Your task to perform on an android device: set default search engine in the chrome app Image 0: 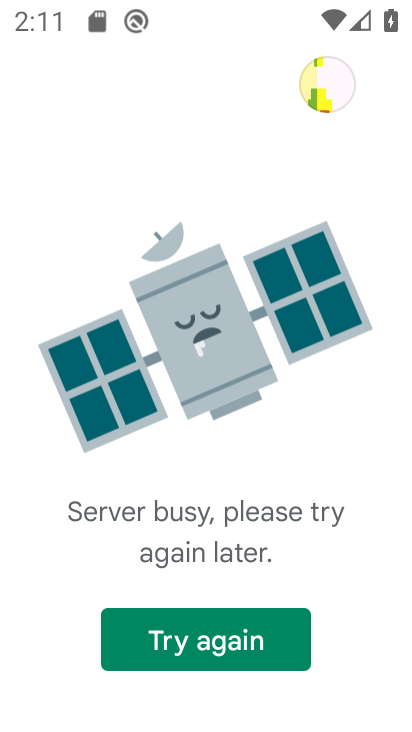
Step 0: press home button
Your task to perform on an android device: set default search engine in the chrome app Image 1: 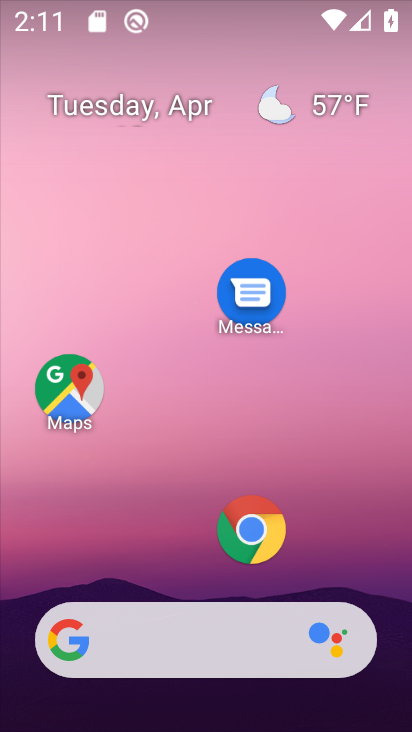
Step 1: click (257, 525)
Your task to perform on an android device: set default search engine in the chrome app Image 2: 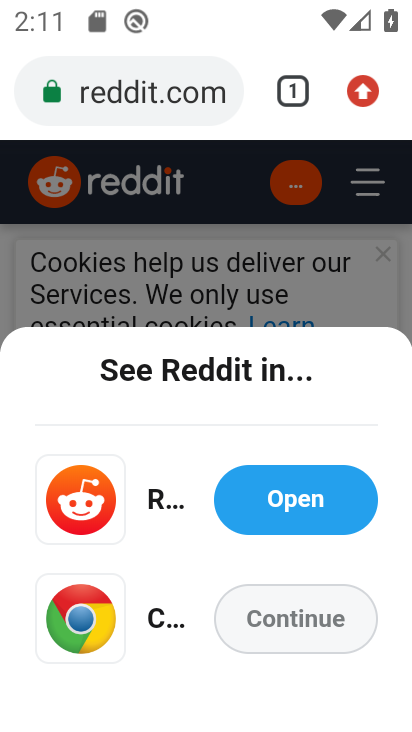
Step 2: click (363, 88)
Your task to perform on an android device: set default search engine in the chrome app Image 3: 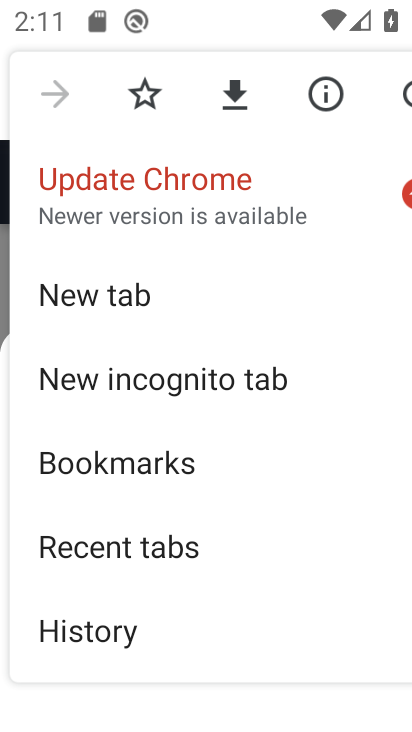
Step 3: drag from (270, 547) to (292, 202)
Your task to perform on an android device: set default search engine in the chrome app Image 4: 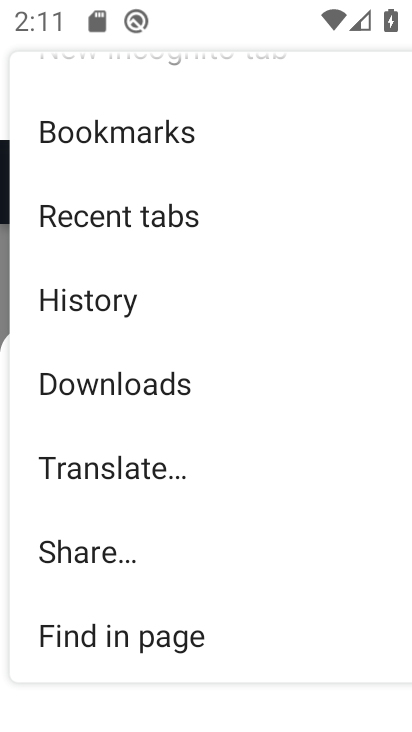
Step 4: drag from (145, 532) to (182, 297)
Your task to perform on an android device: set default search engine in the chrome app Image 5: 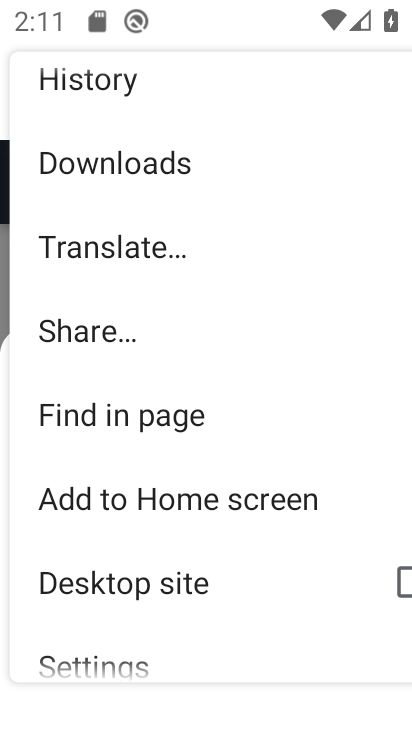
Step 5: click (93, 654)
Your task to perform on an android device: set default search engine in the chrome app Image 6: 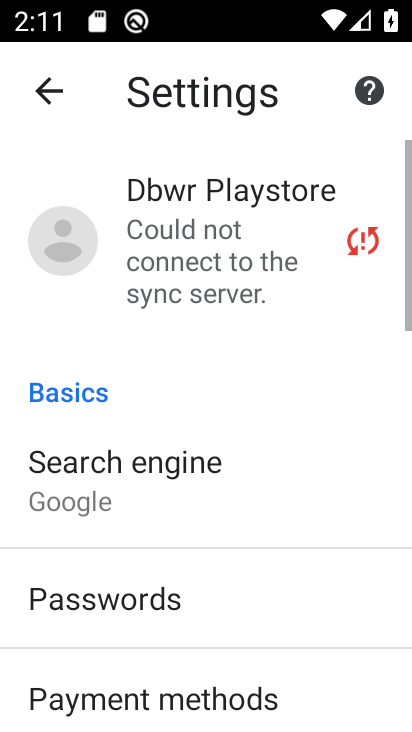
Step 6: click (132, 484)
Your task to perform on an android device: set default search engine in the chrome app Image 7: 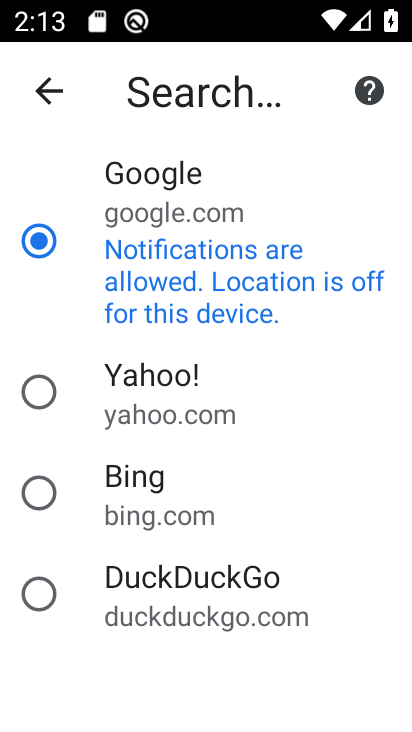
Step 7: task complete